Your task to perform on an android device: open chrome and create a bookmark for the current page Image 0: 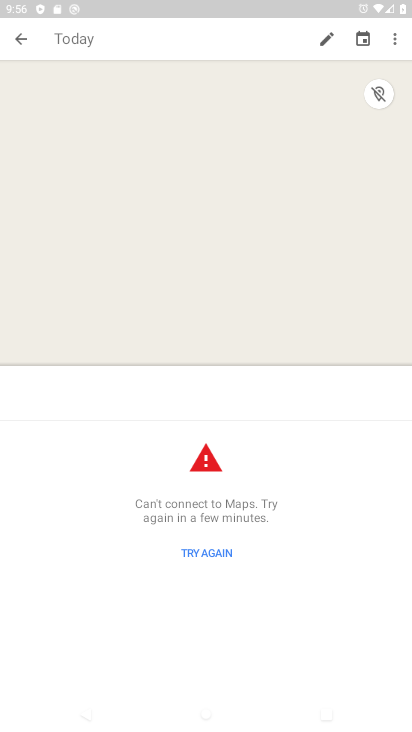
Step 0: press home button
Your task to perform on an android device: open chrome and create a bookmark for the current page Image 1: 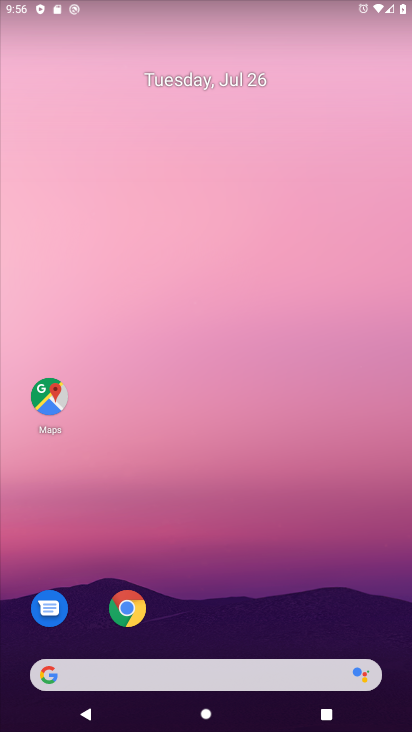
Step 1: click (125, 607)
Your task to perform on an android device: open chrome and create a bookmark for the current page Image 2: 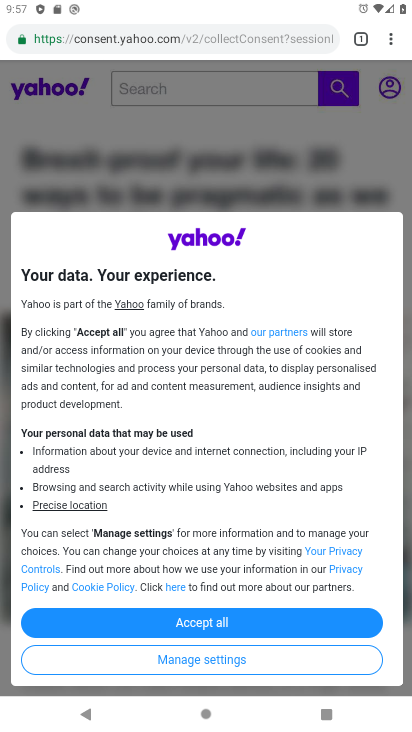
Step 2: click (387, 38)
Your task to perform on an android device: open chrome and create a bookmark for the current page Image 3: 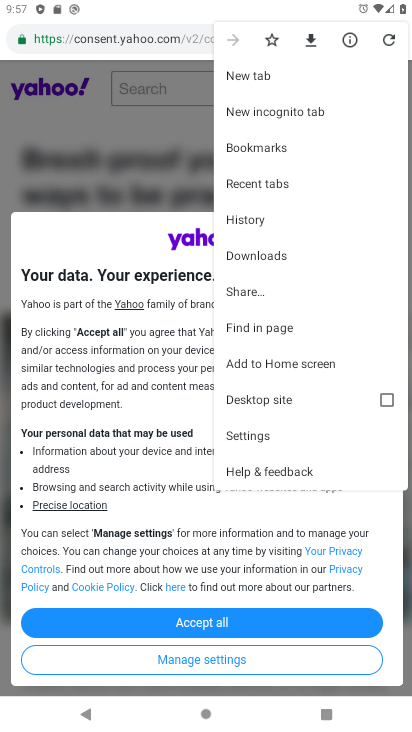
Step 3: click (268, 35)
Your task to perform on an android device: open chrome and create a bookmark for the current page Image 4: 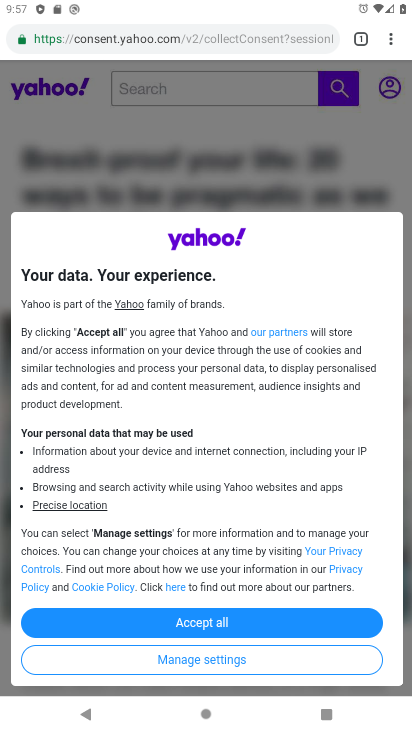
Step 4: task complete